Your task to perform on an android device: Go to wifi settings Image 0: 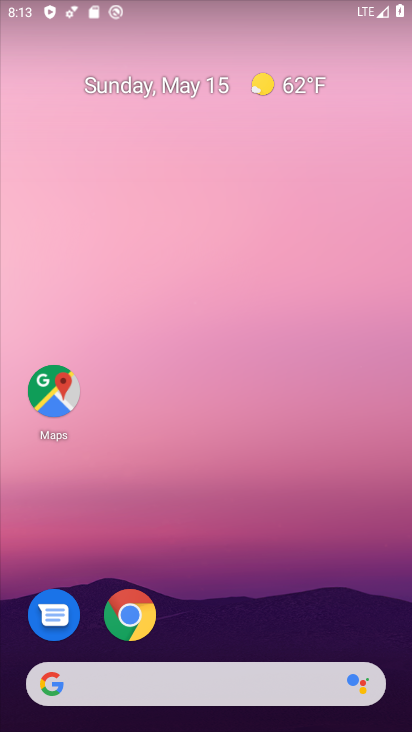
Step 0: drag from (216, 246) to (247, 20)
Your task to perform on an android device: Go to wifi settings Image 1: 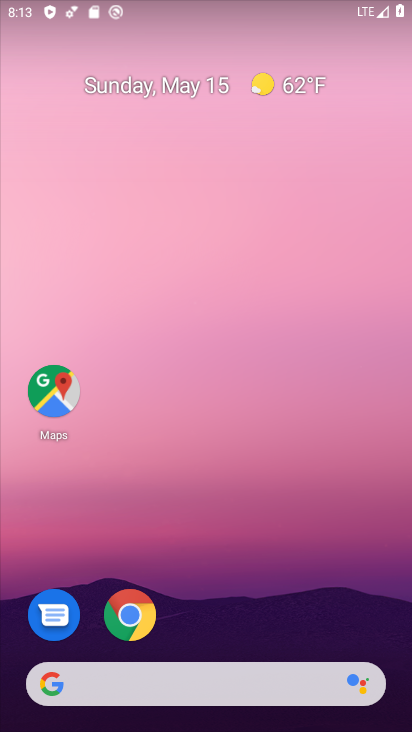
Step 1: drag from (182, 488) to (282, 40)
Your task to perform on an android device: Go to wifi settings Image 2: 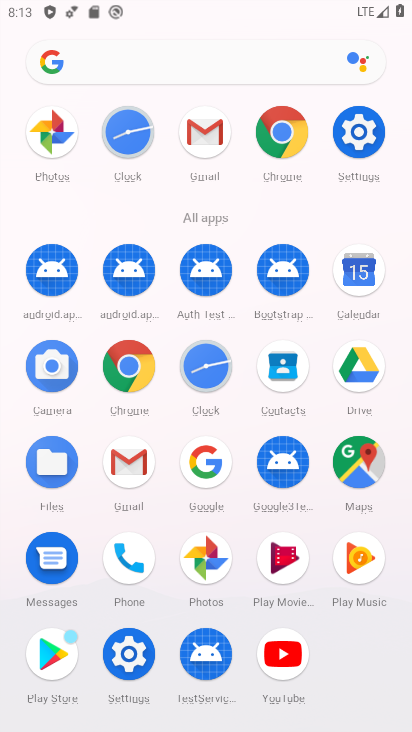
Step 2: click (351, 138)
Your task to perform on an android device: Go to wifi settings Image 3: 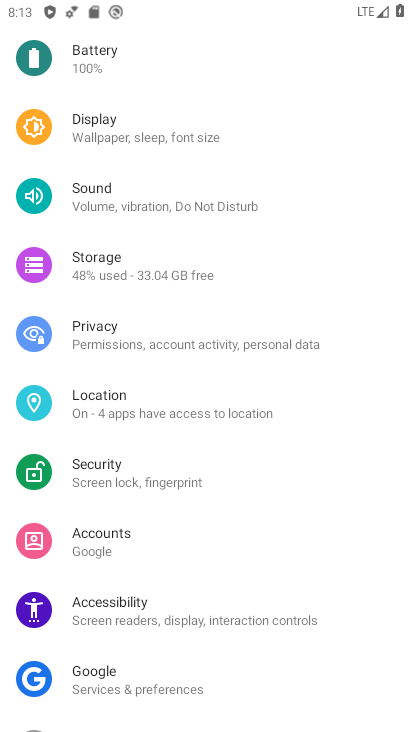
Step 3: drag from (167, 139) to (176, 644)
Your task to perform on an android device: Go to wifi settings Image 4: 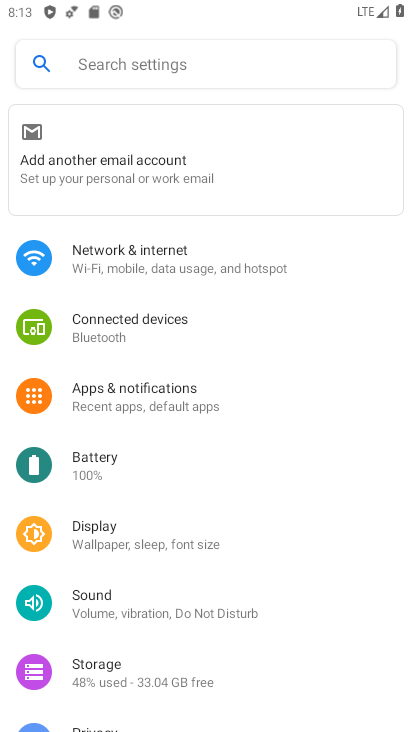
Step 4: click (175, 269)
Your task to perform on an android device: Go to wifi settings Image 5: 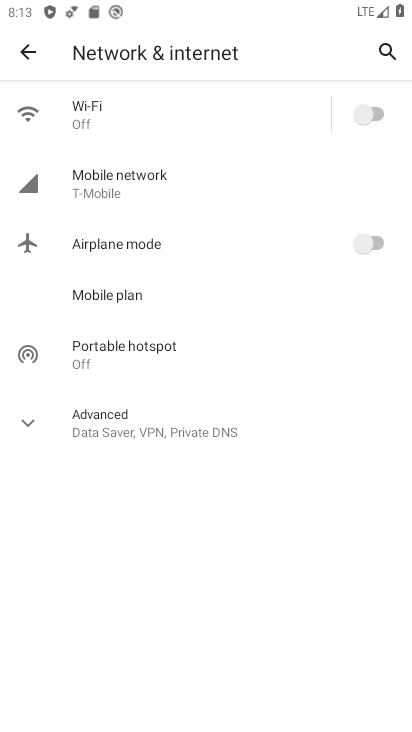
Step 5: click (178, 130)
Your task to perform on an android device: Go to wifi settings Image 6: 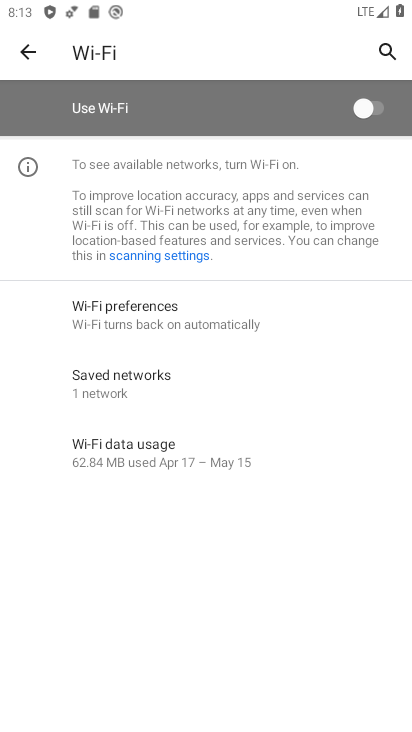
Step 6: task complete